Your task to perform on an android device: turn on translation in the chrome app Image 0: 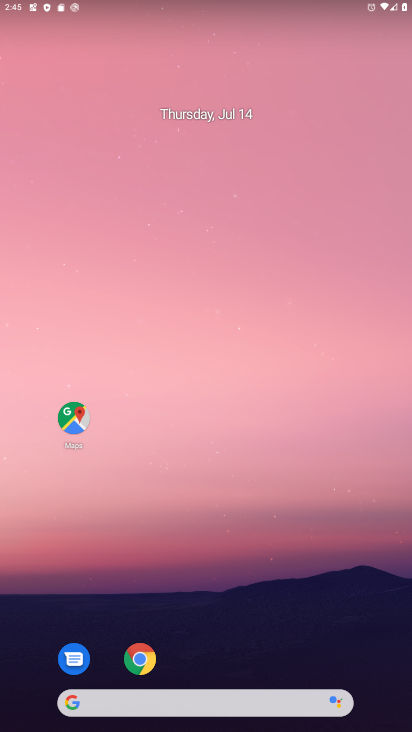
Step 0: press home button
Your task to perform on an android device: turn on translation in the chrome app Image 1: 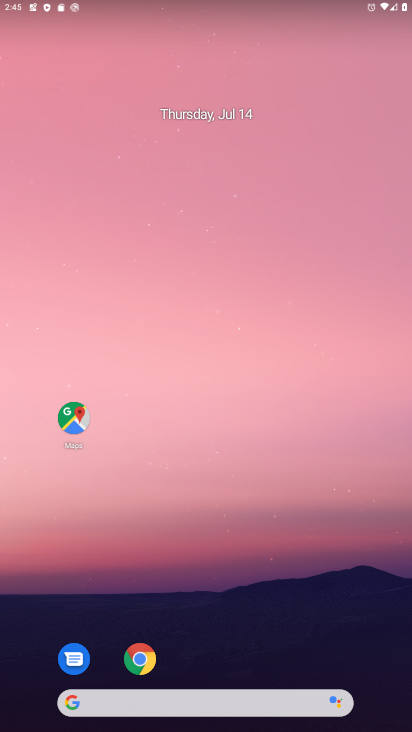
Step 1: drag from (328, 636) to (285, 66)
Your task to perform on an android device: turn on translation in the chrome app Image 2: 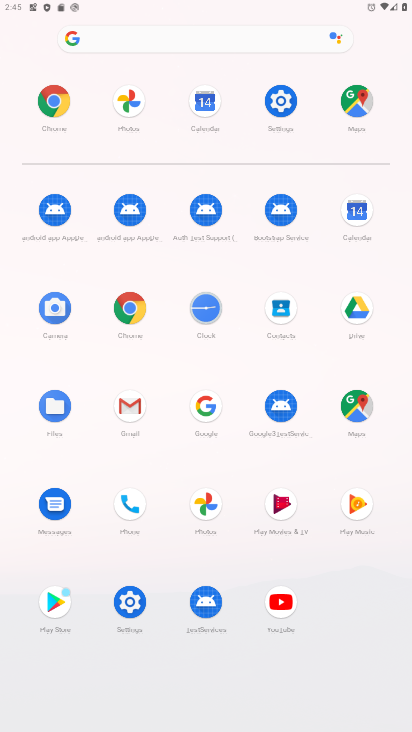
Step 2: click (55, 117)
Your task to perform on an android device: turn on translation in the chrome app Image 3: 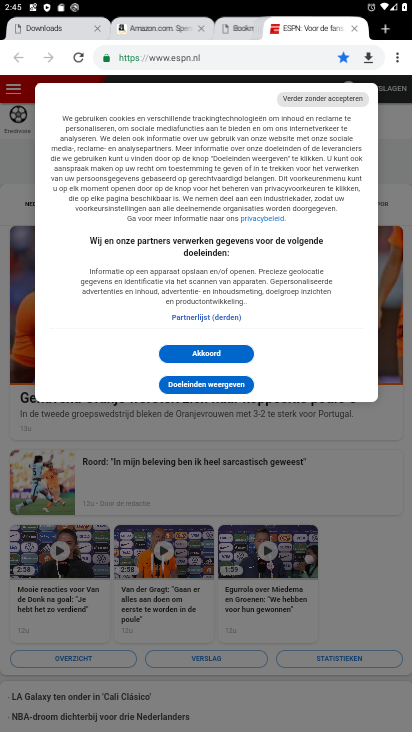
Step 3: drag from (391, 58) to (272, 385)
Your task to perform on an android device: turn on translation in the chrome app Image 4: 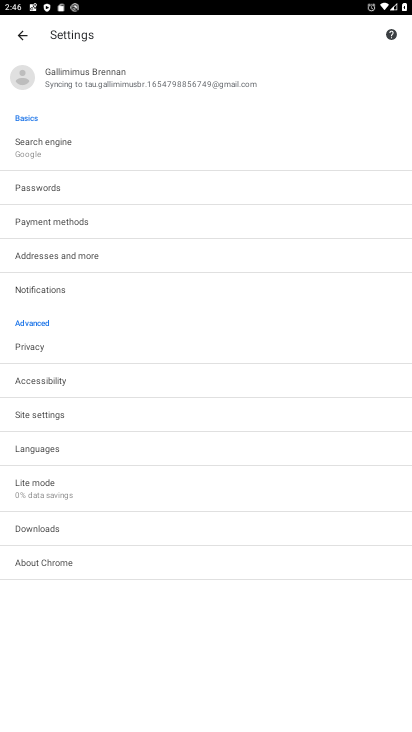
Step 4: click (40, 455)
Your task to perform on an android device: turn on translation in the chrome app Image 5: 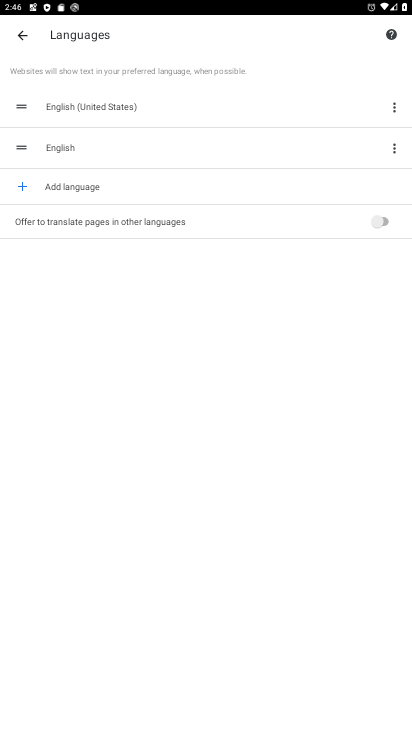
Step 5: click (385, 214)
Your task to perform on an android device: turn on translation in the chrome app Image 6: 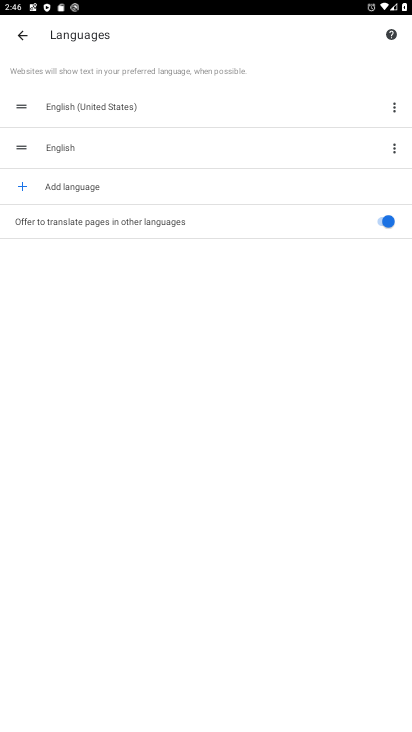
Step 6: task complete